Your task to perform on an android device: What's on the menu at Red Lobster? Image 0: 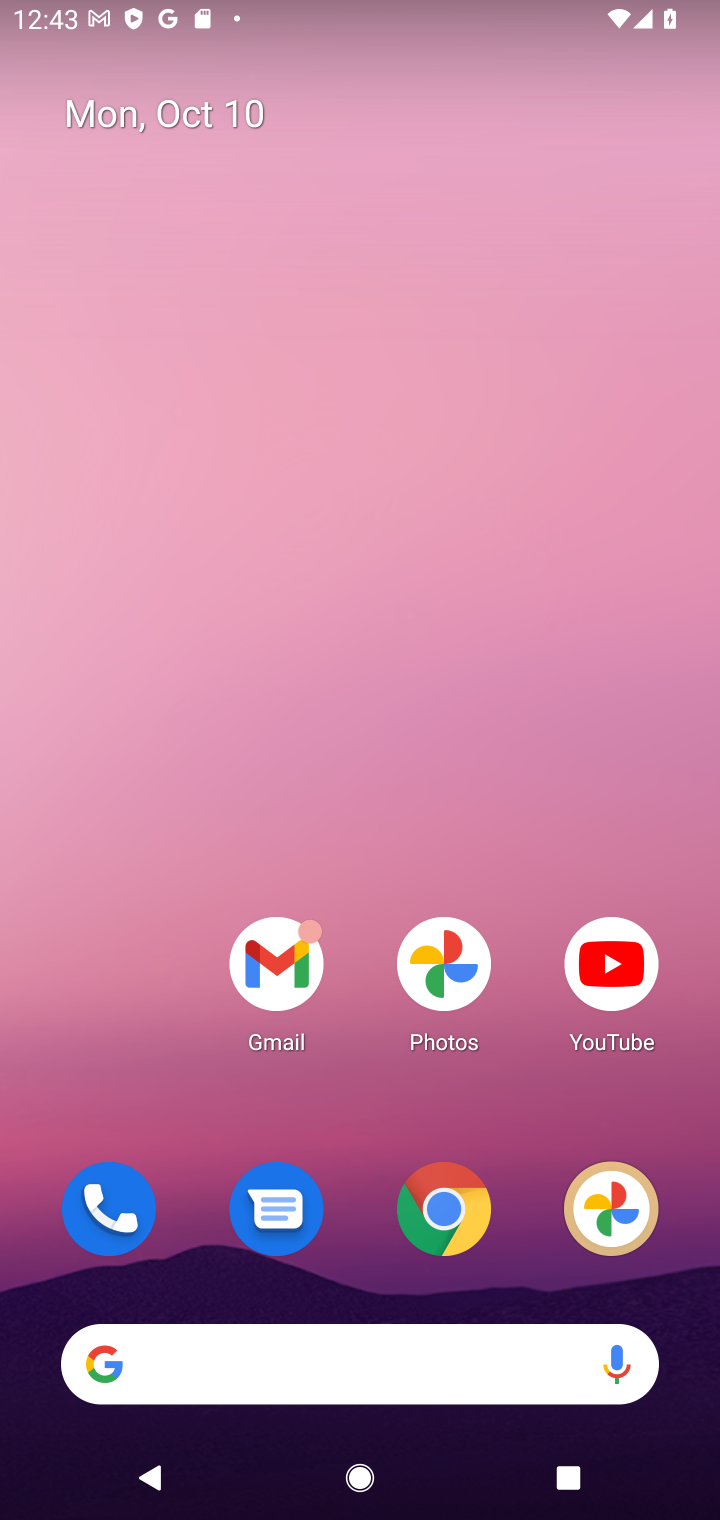
Step 0: drag from (357, 1038) to (354, 283)
Your task to perform on an android device: What's on the menu at Red Lobster? Image 1: 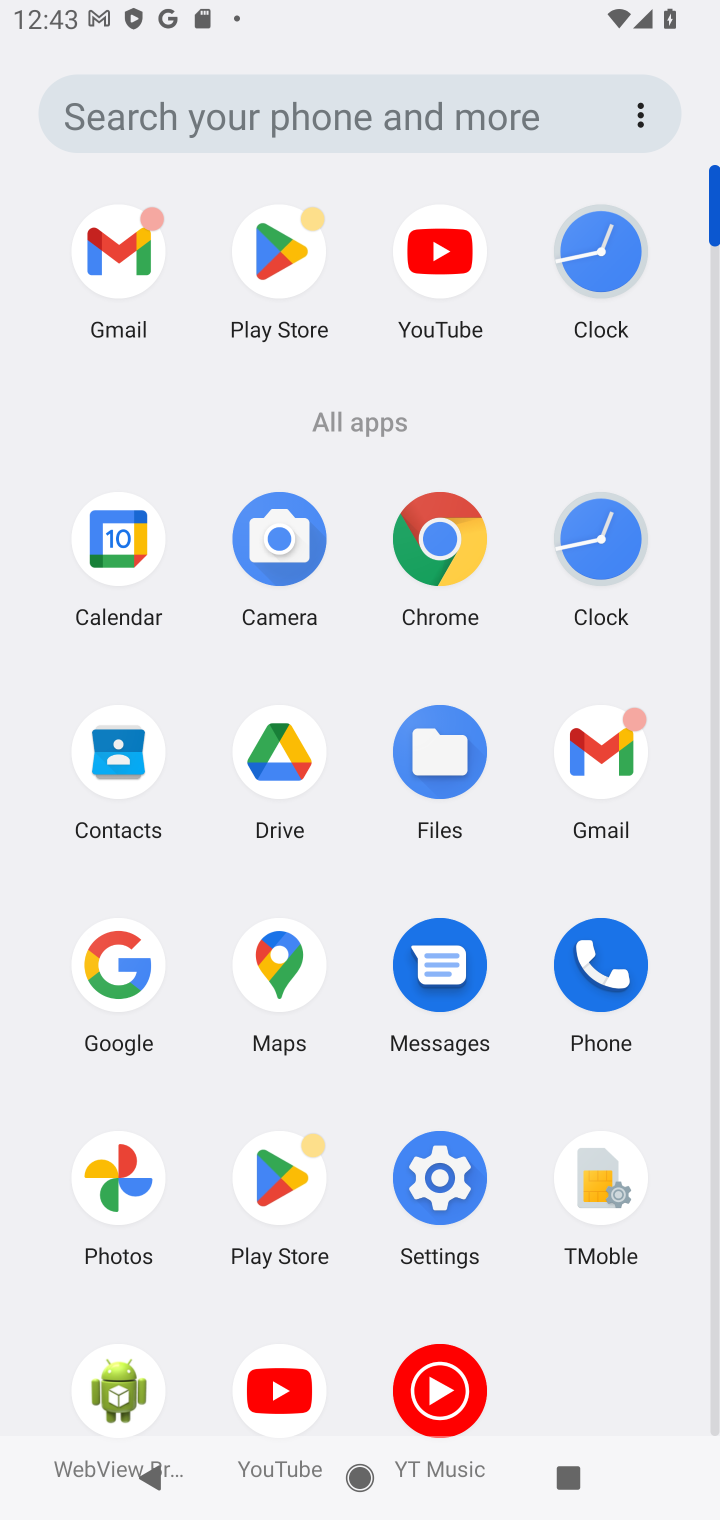
Step 1: click (112, 985)
Your task to perform on an android device: What's on the menu at Red Lobster? Image 2: 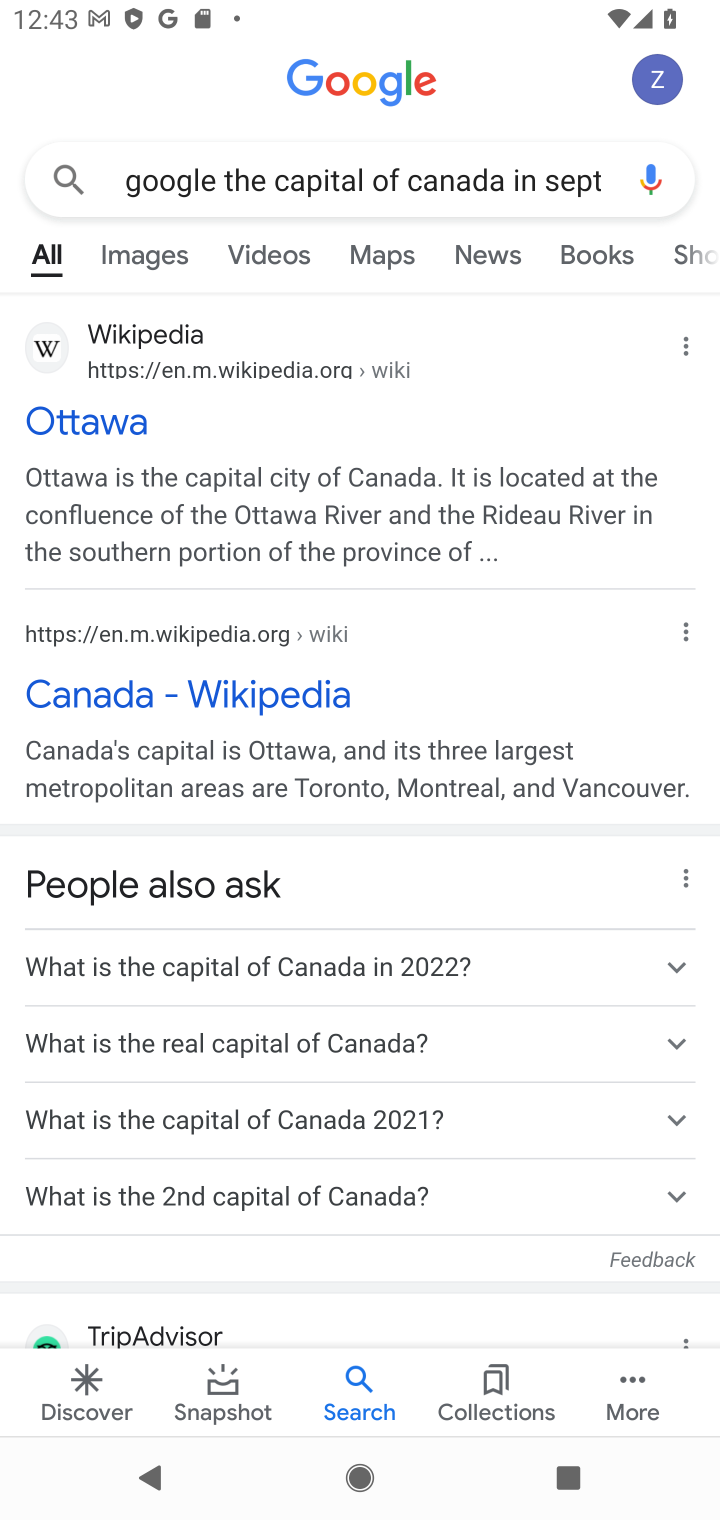
Step 2: click (307, 186)
Your task to perform on an android device: What's on the menu at Red Lobster? Image 3: 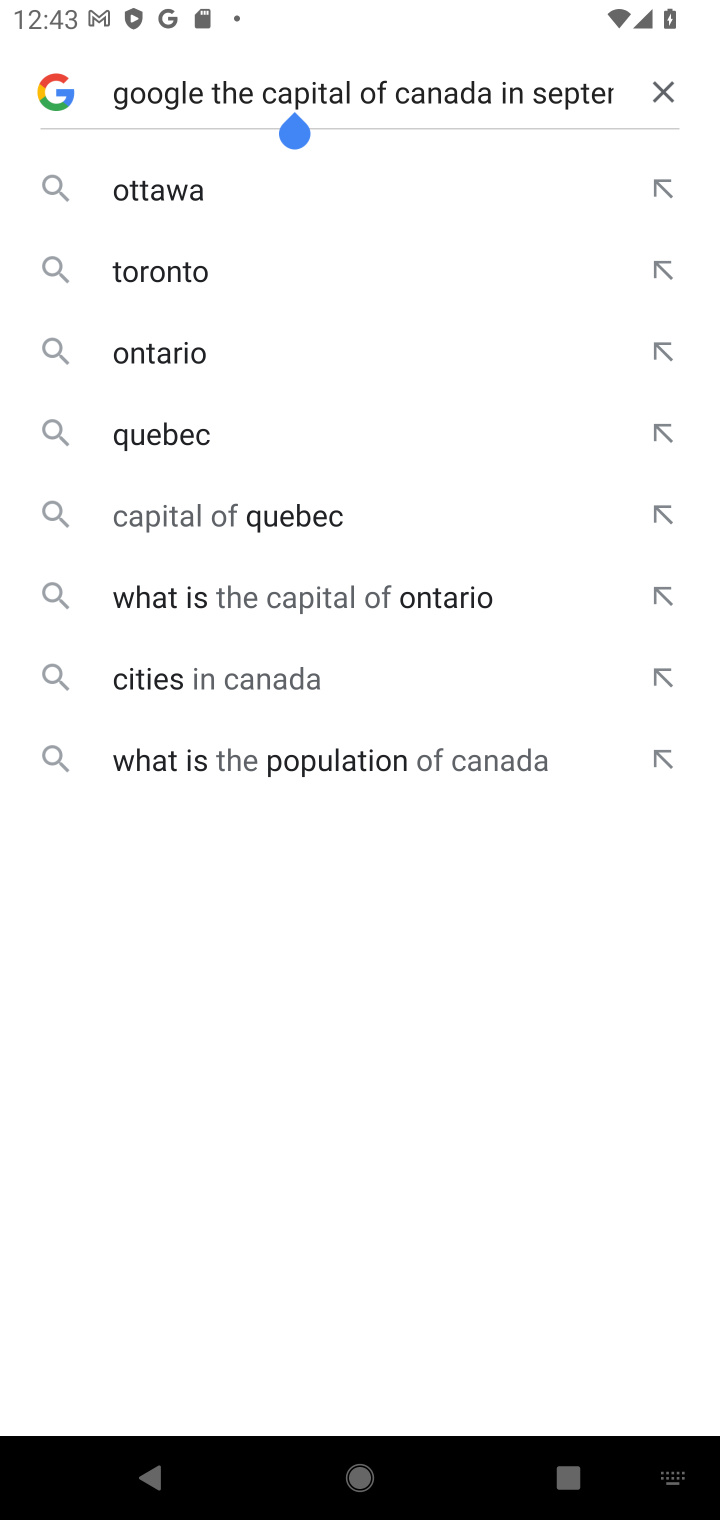
Step 3: click (668, 87)
Your task to perform on an android device: What's on the menu at Red Lobster? Image 4: 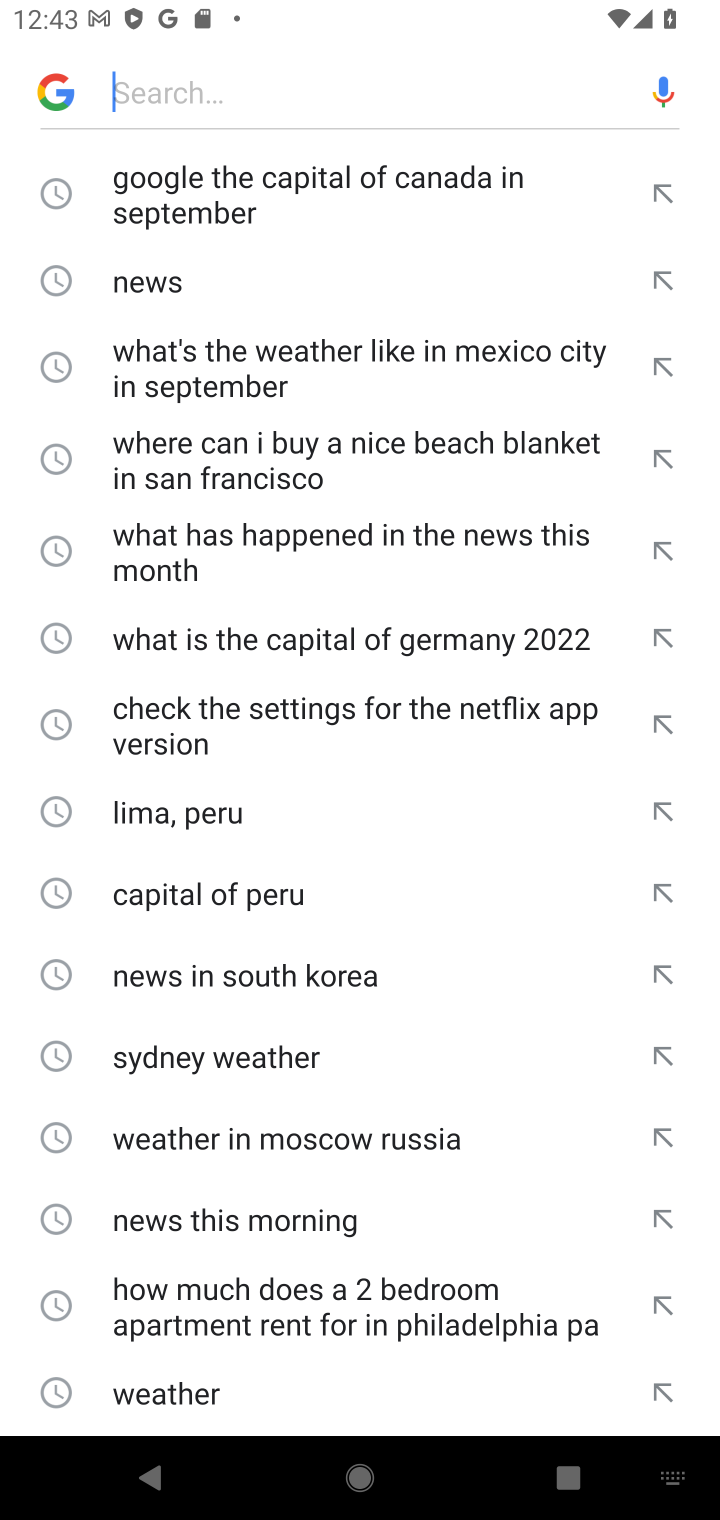
Step 4: type "What's on the menu at Red Lobster?"
Your task to perform on an android device: What's on the menu at Red Lobster? Image 5: 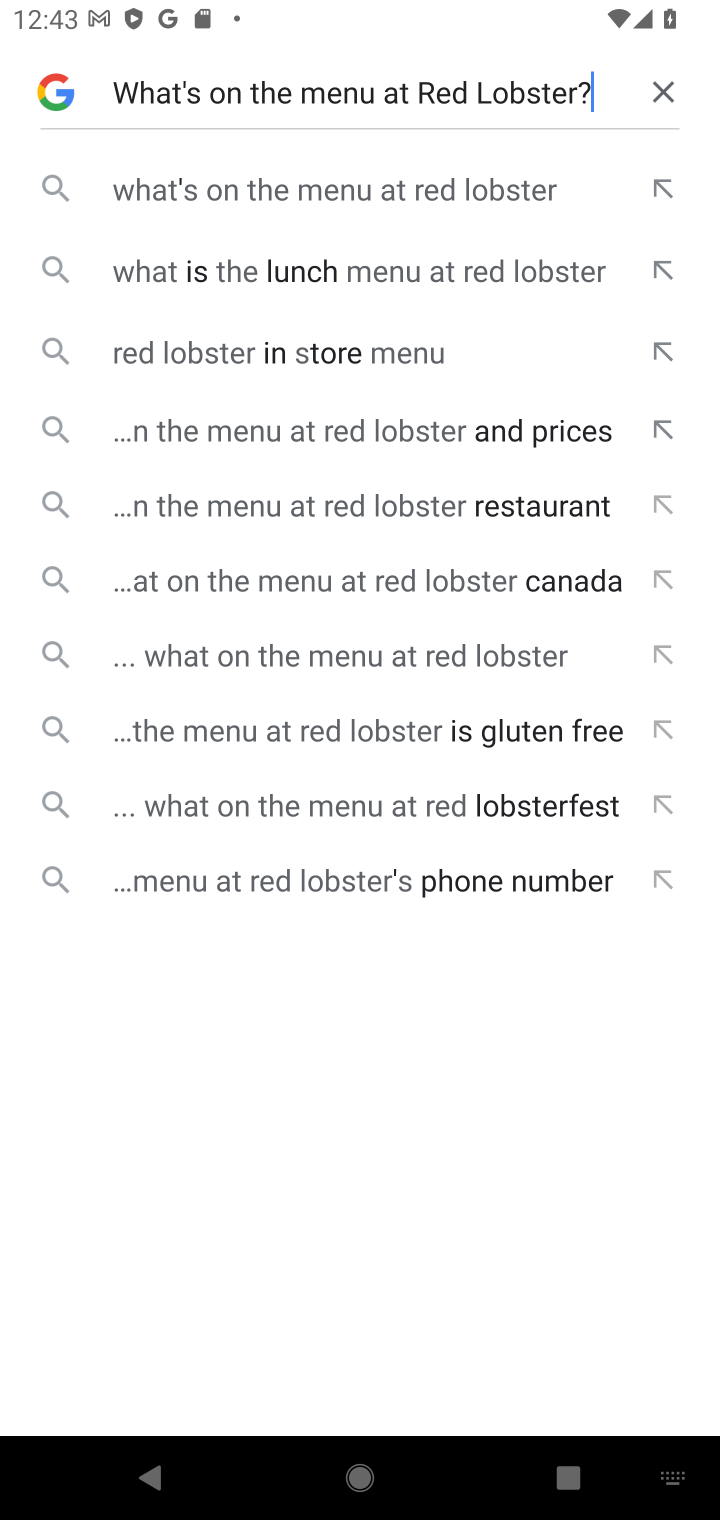
Step 5: click (415, 201)
Your task to perform on an android device: What's on the menu at Red Lobster? Image 6: 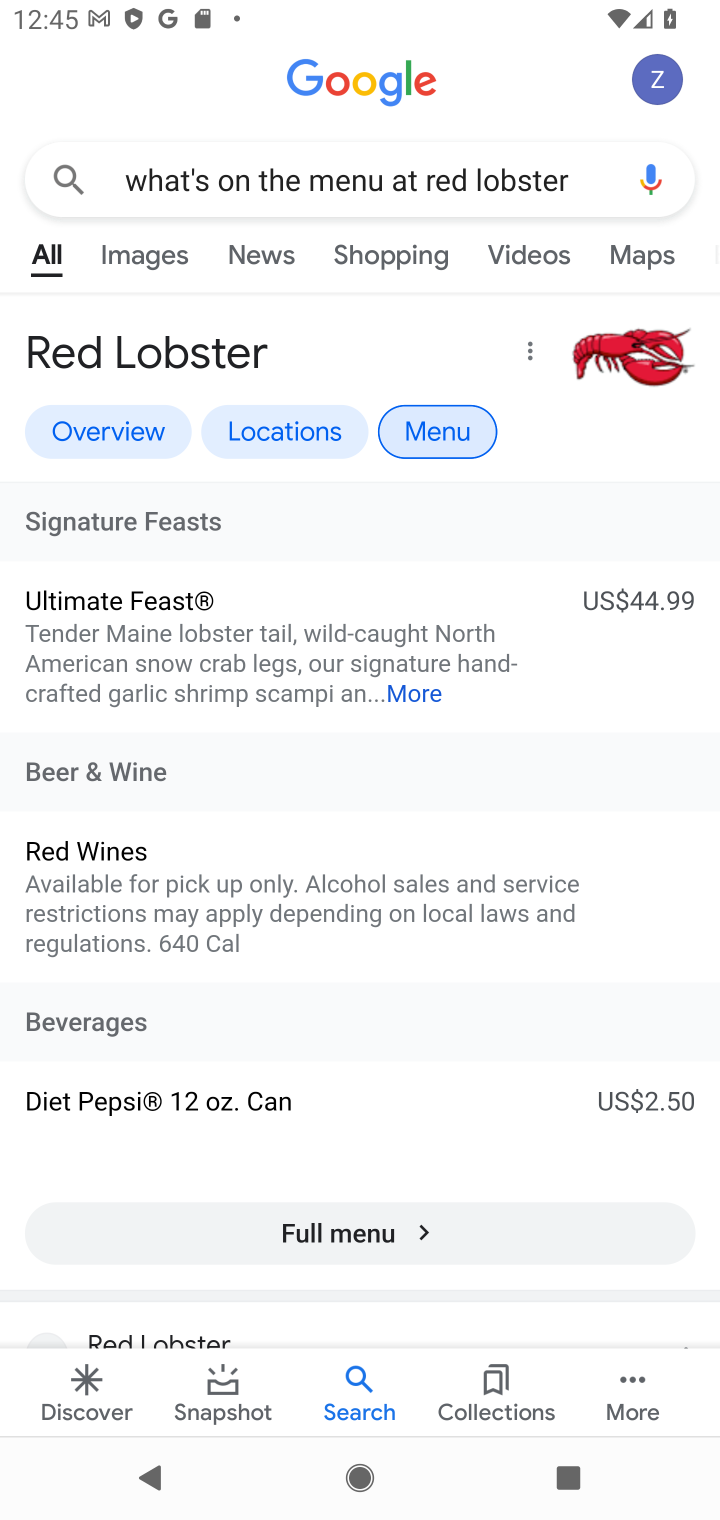
Step 6: task complete